Your task to perform on an android device: toggle data saver in the chrome app Image 0: 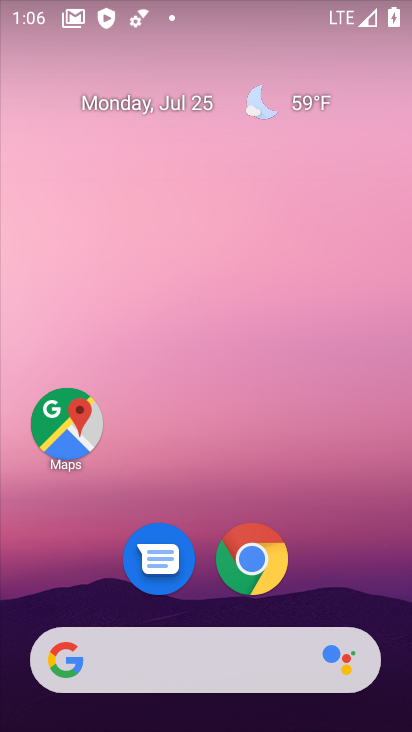
Step 0: click (260, 553)
Your task to perform on an android device: toggle data saver in the chrome app Image 1: 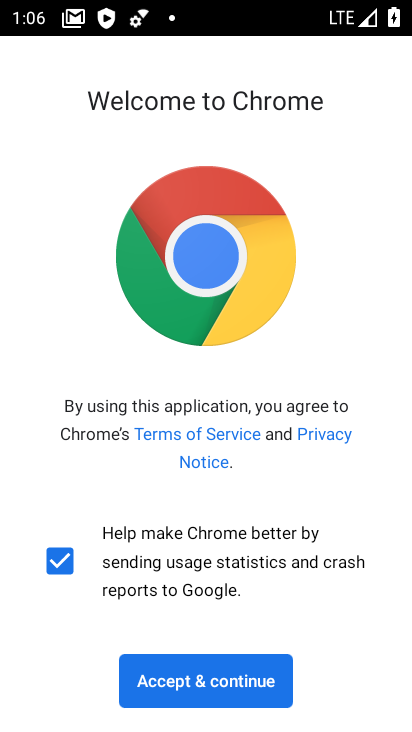
Step 1: click (186, 681)
Your task to perform on an android device: toggle data saver in the chrome app Image 2: 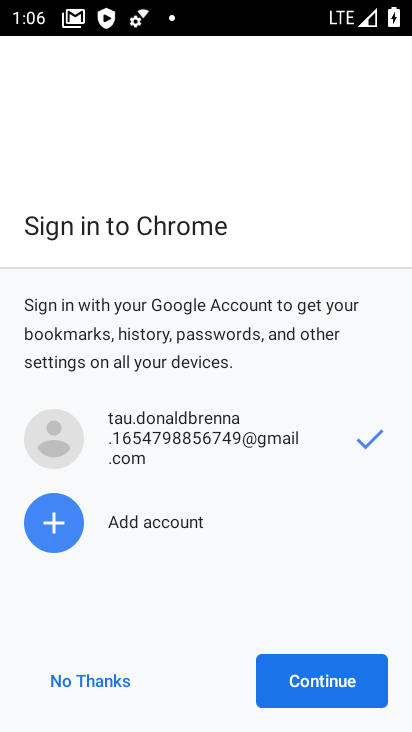
Step 2: click (341, 693)
Your task to perform on an android device: toggle data saver in the chrome app Image 3: 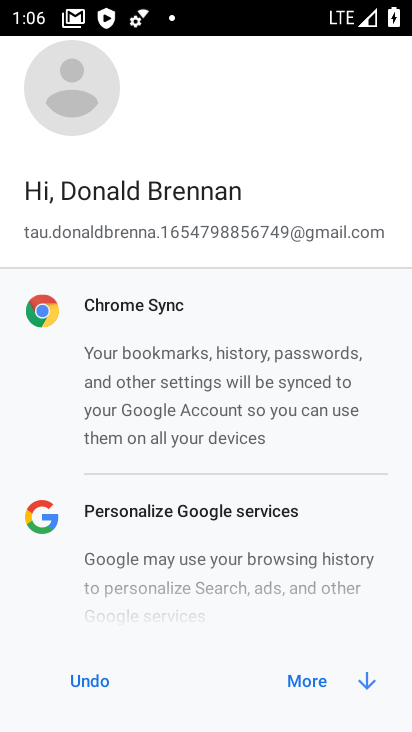
Step 3: click (332, 685)
Your task to perform on an android device: toggle data saver in the chrome app Image 4: 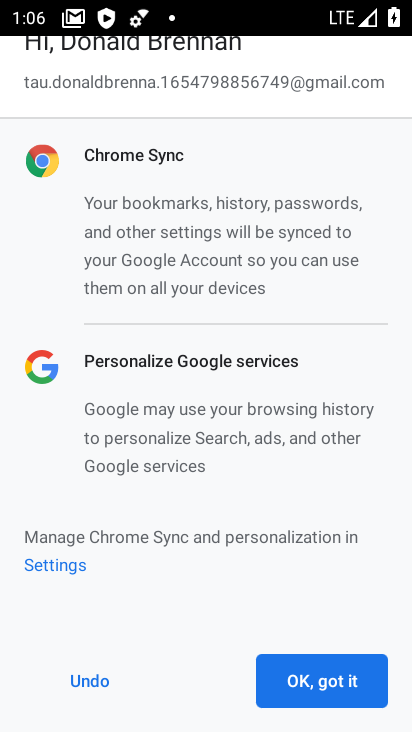
Step 4: click (332, 685)
Your task to perform on an android device: toggle data saver in the chrome app Image 5: 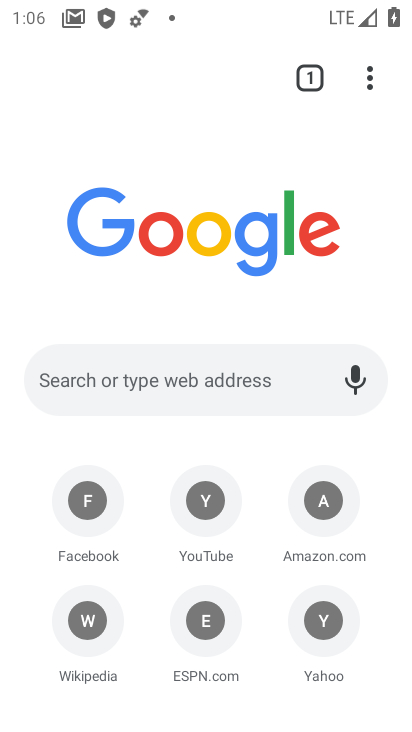
Step 5: drag from (366, 72) to (126, 605)
Your task to perform on an android device: toggle data saver in the chrome app Image 6: 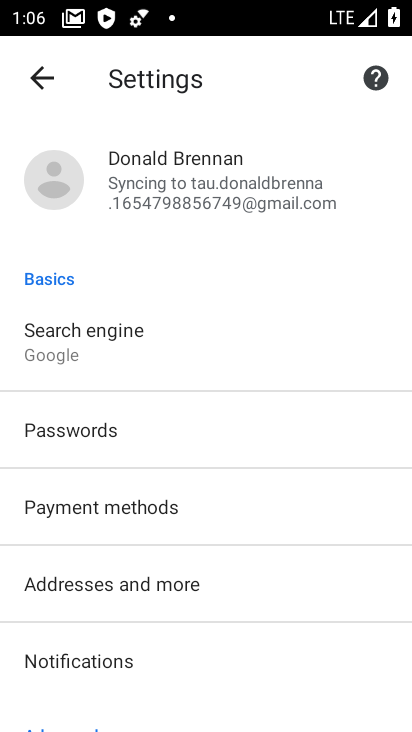
Step 6: drag from (134, 611) to (268, 102)
Your task to perform on an android device: toggle data saver in the chrome app Image 7: 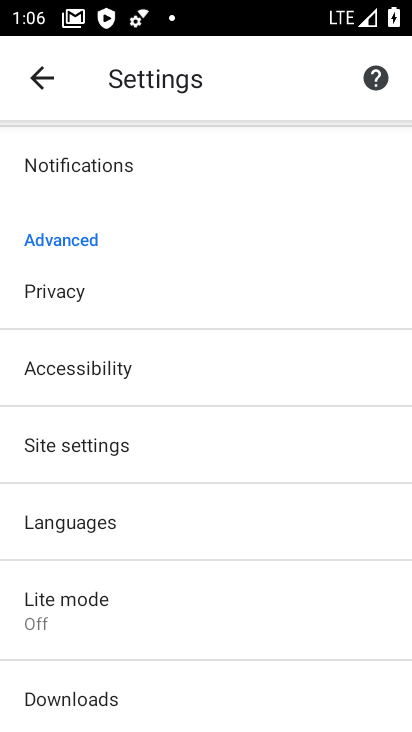
Step 7: click (99, 619)
Your task to perform on an android device: toggle data saver in the chrome app Image 8: 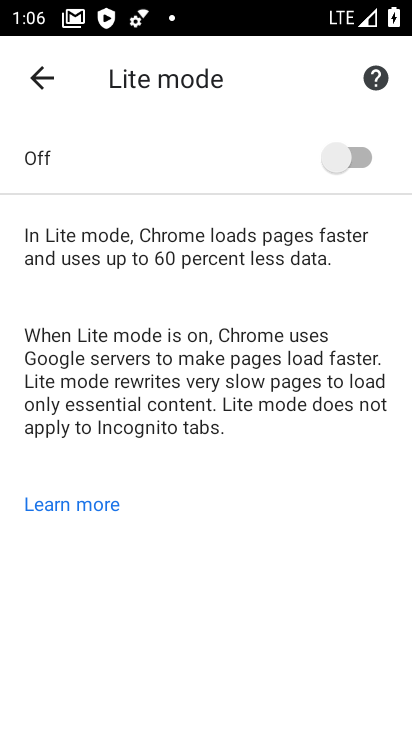
Step 8: click (356, 151)
Your task to perform on an android device: toggle data saver in the chrome app Image 9: 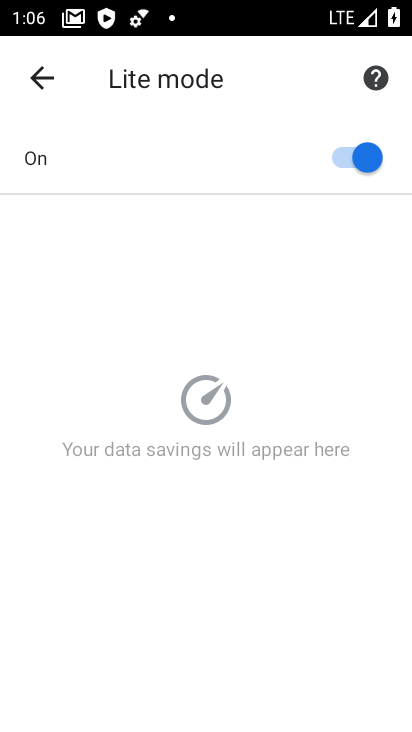
Step 9: task complete